Your task to perform on an android device: open app "Pandora - Music & Podcasts" Image 0: 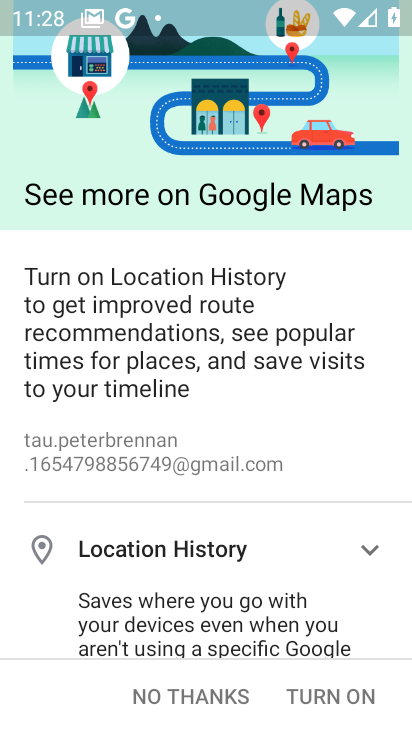
Step 0: click (166, 689)
Your task to perform on an android device: open app "Pandora - Music & Podcasts" Image 1: 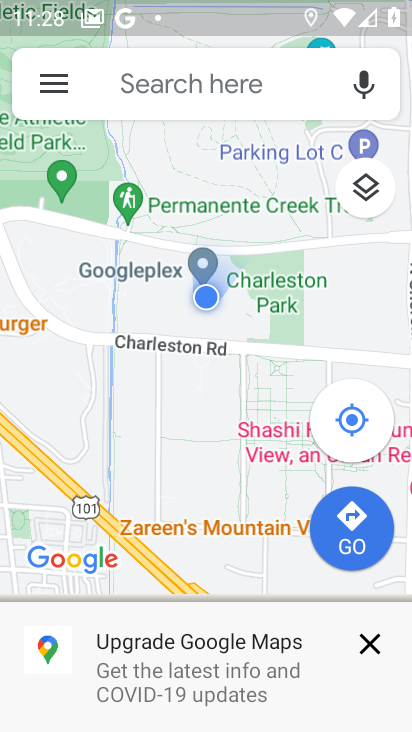
Step 1: press back button
Your task to perform on an android device: open app "Pandora - Music & Podcasts" Image 2: 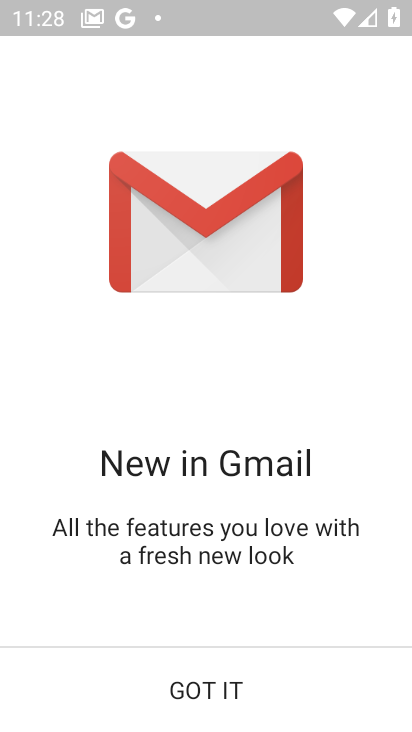
Step 2: press back button
Your task to perform on an android device: open app "Pandora - Music & Podcasts" Image 3: 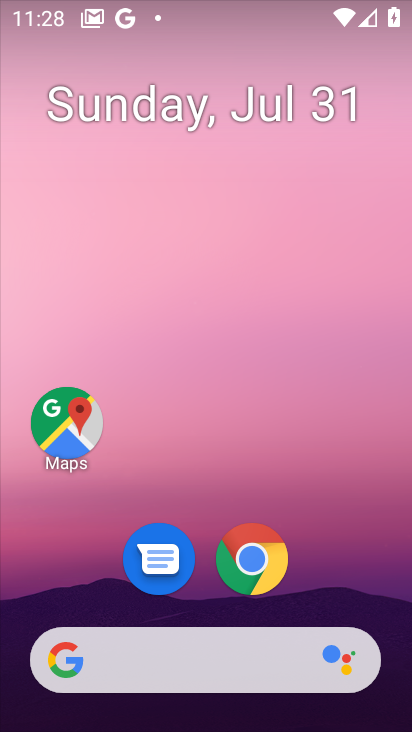
Step 3: drag from (61, 484) to (174, 42)
Your task to perform on an android device: open app "Pandora - Music & Podcasts" Image 4: 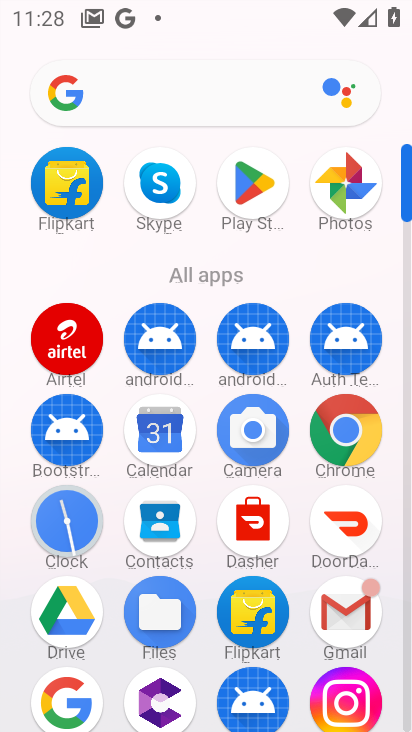
Step 4: click (239, 166)
Your task to perform on an android device: open app "Pandora - Music & Podcasts" Image 5: 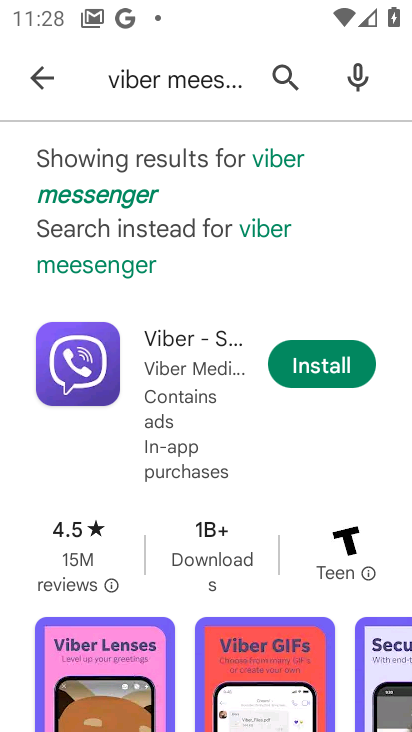
Step 5: click (271, 86)
Your task to perform on an android device: open app "Pandora - Music & Podcasts" Image 6: 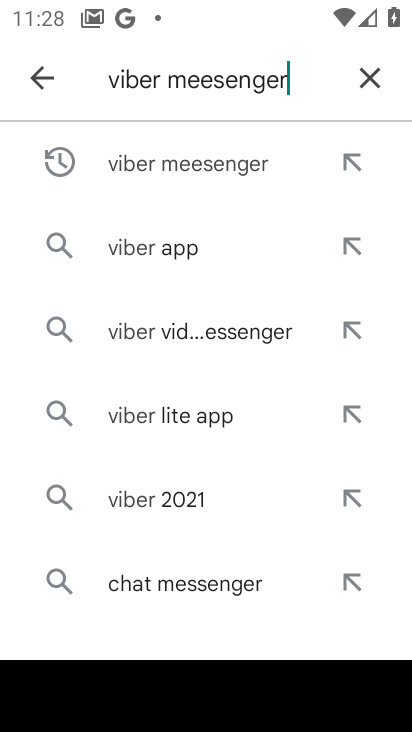
Step 6: click (387, 68)
Your task to perform on an android device: open app "Pandora - Music & Podcasts" Image 7: 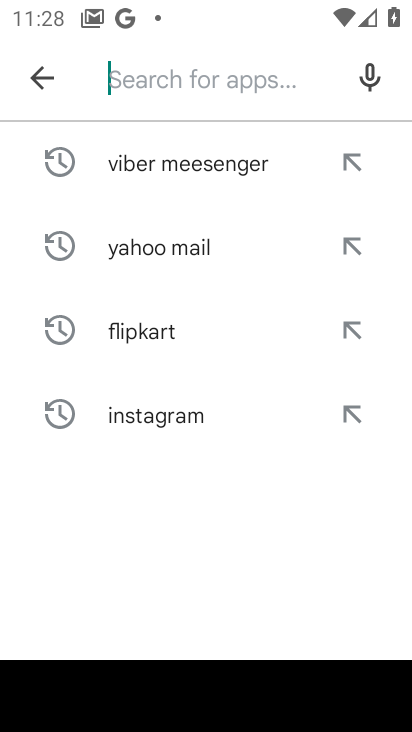
Step 7: click (122, 80)
Your task to perform on an android device: open app "Pandora - Music & Podcasts" Image 8: 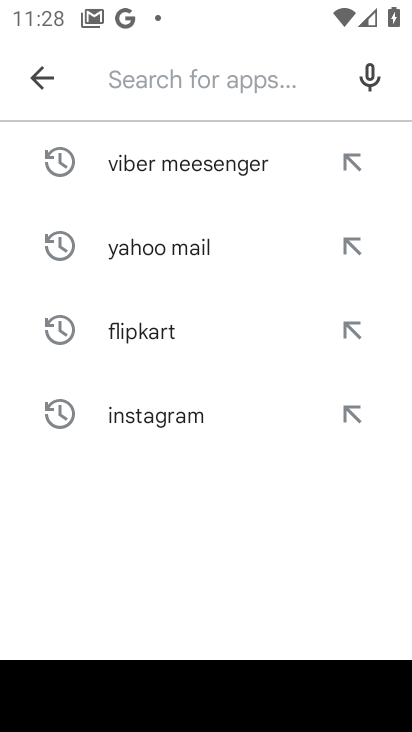
Step 8: type "pandora"
Your task to perform on an android device: open app "Pandora - Music & Podcasts" Image 9: 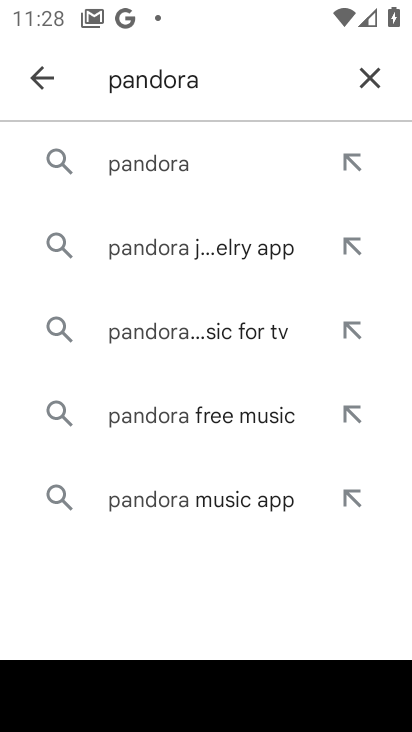
Step 9: click (175, 149)
Your task to perform on an android device: open app "Pandora - Music & Podcasts" Image 10: 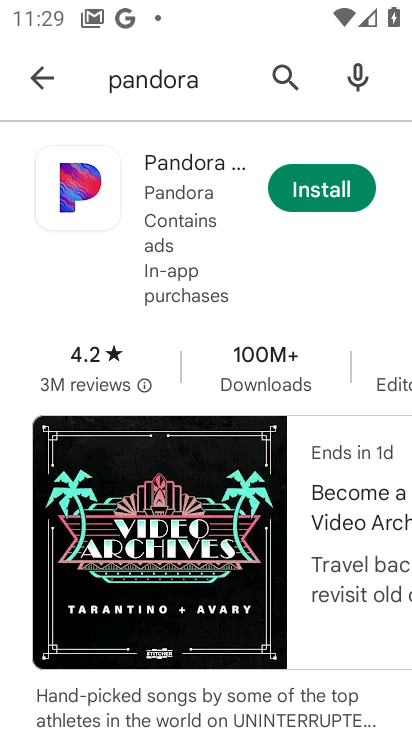
Step 10: task complete